Your task to perform on an android device: turn off wifi Image 0: 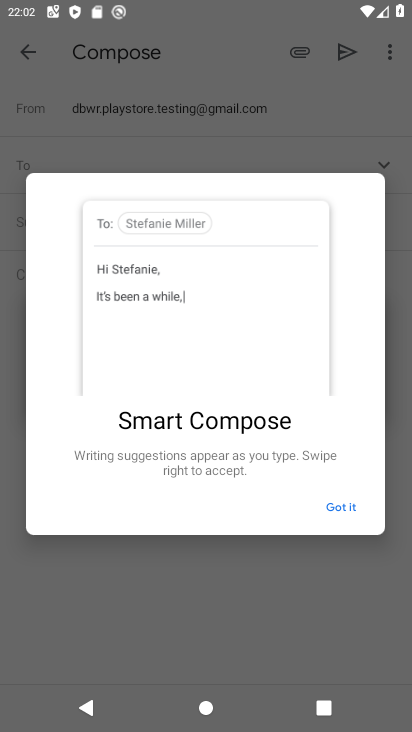
Step 0: press home button
Your task to perform on an android device: turn off wifi Image 1: 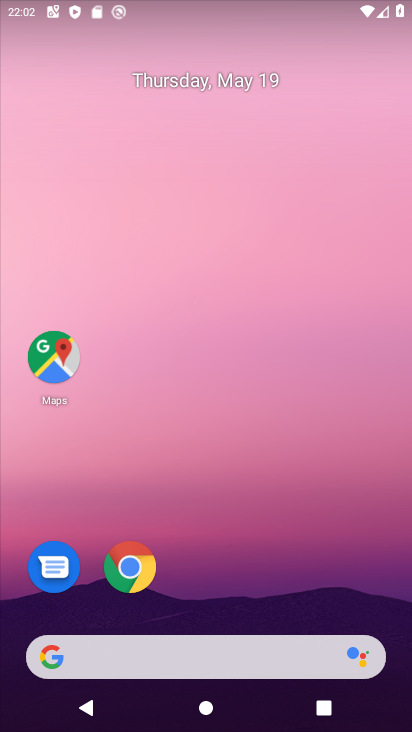
Step 1: task complete